Your task to perform on an android device: turn on location history Image 0: 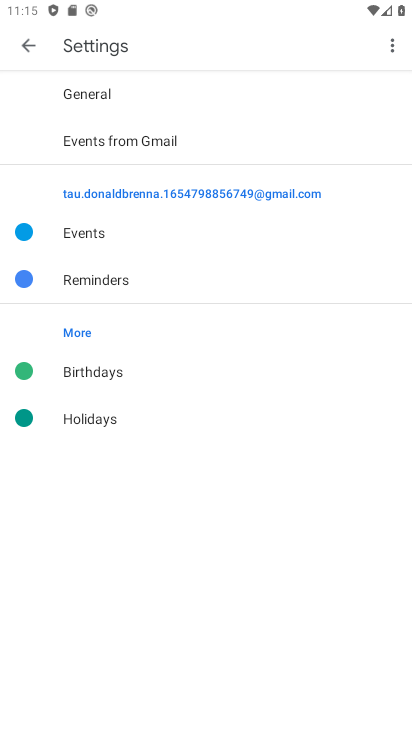
Step 0: press home button
Your task to perform on an android device: turn on location history Image 1: 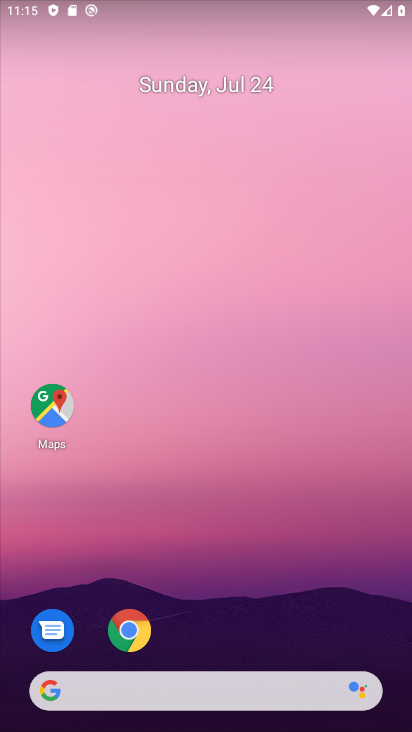
Step 1: drag from (204, 516) to (204, 93)
Your task to perform on an android device: turn on location history Image 2: 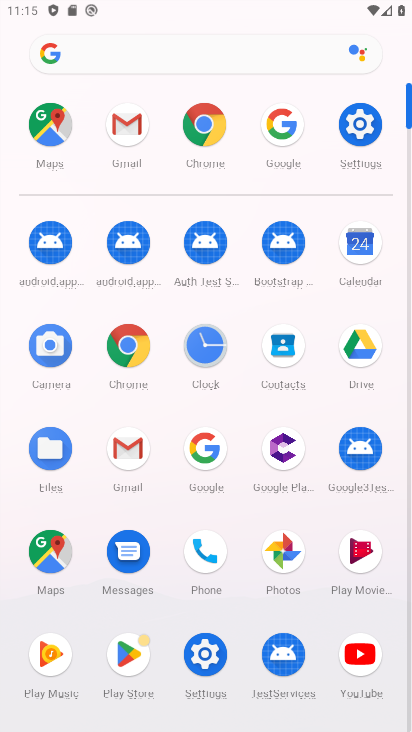
Step 2: click (355, 131)
Your task to perform on an android device: turn on location history Image 3: 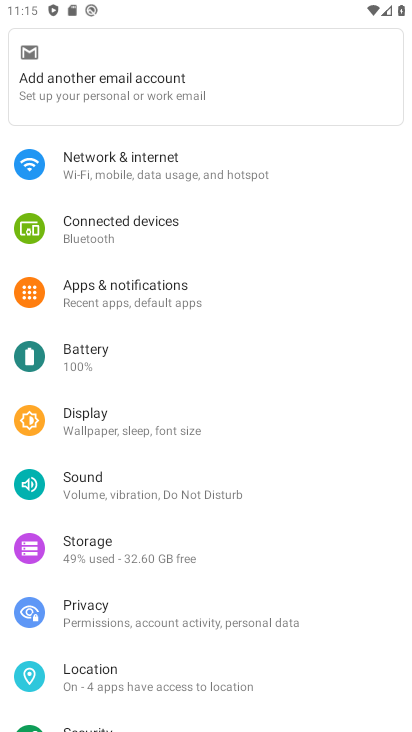
Step 3: click (94, 671)
Your task to perform on an android device: turn on location history Image 4: 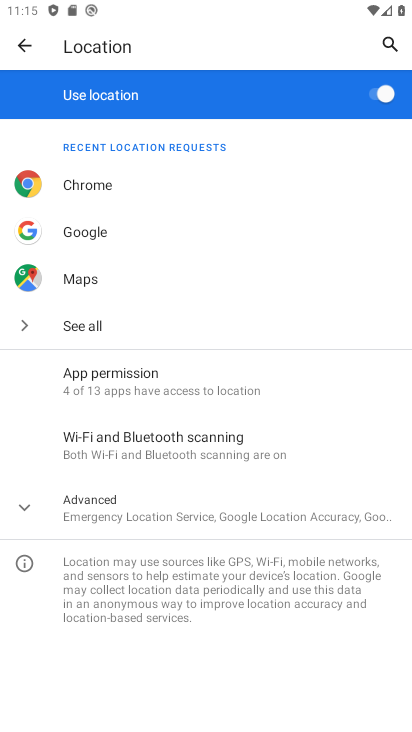
Step 4: click (134, 510)
Your task to perform on an android device: turn on location history Image 5: 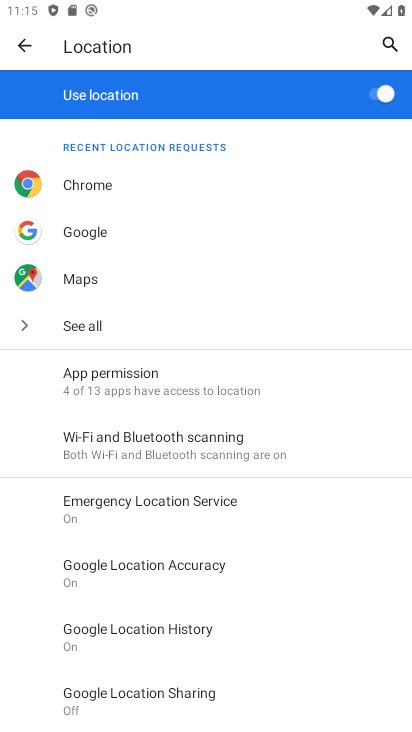
Step 5: click (106, 629)
Your task to perform on an android device: turn on location history Image 6: 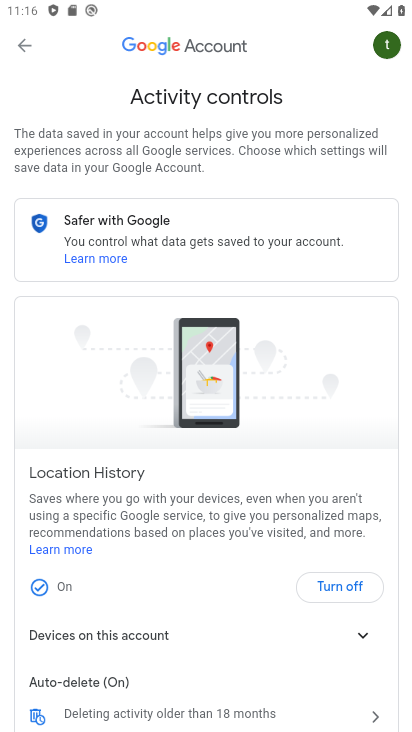
Step 6: task complete